Your task to perform on an android device: read, delete, or share a saved page in the chrome app Image 0: 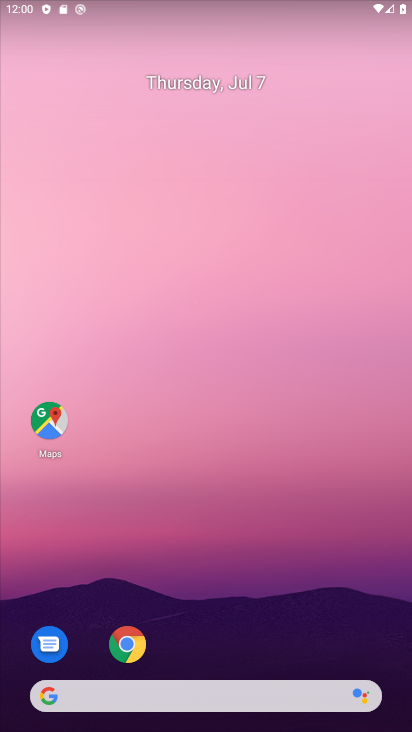
Step 0: click (144, 659)
Your task to perform on an android device: read, delete, or share a saved page in the chrome app Image 1: 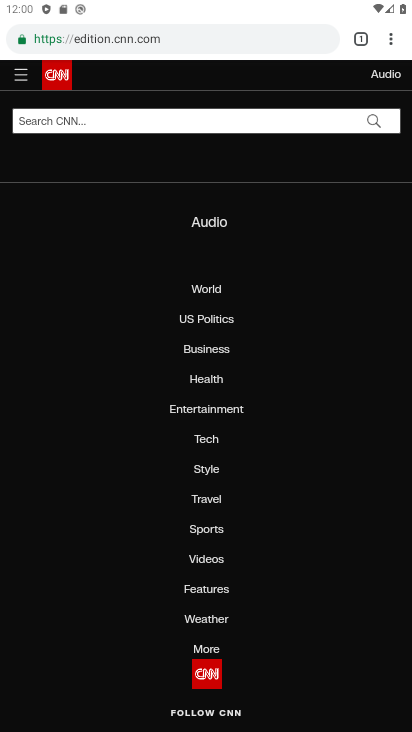
Step 1: click (388, 49)
Your task to perform on an android device: read, delete, or share a saved page in the chrome app Image 2: 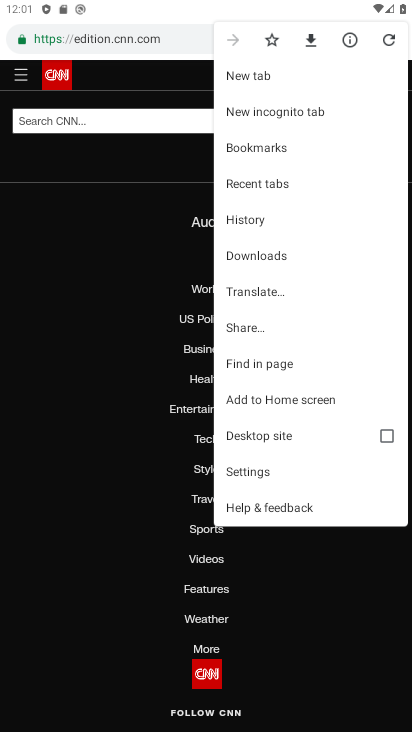
Step 2: click (264, 255)
Your task to perform on an android device: read, delete, or share a saved page in the chrome app Image 3: 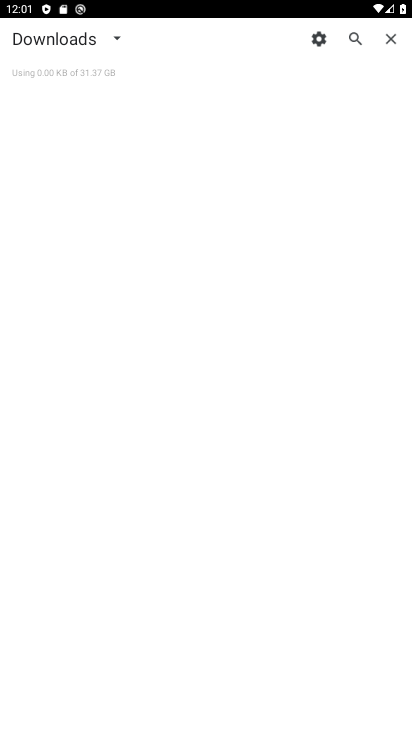
Step 3: click (118, 39)
Your task to perform on an android device: read, delete, or share a saved page in the chrome app Image 4: 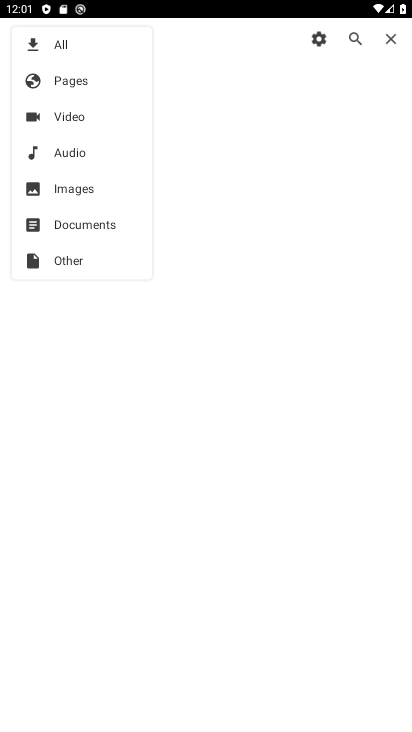
Step 4: click (64, 79)
Your task to perform on an android device: read, delete, or share a saved page in the chrome app Image 5: 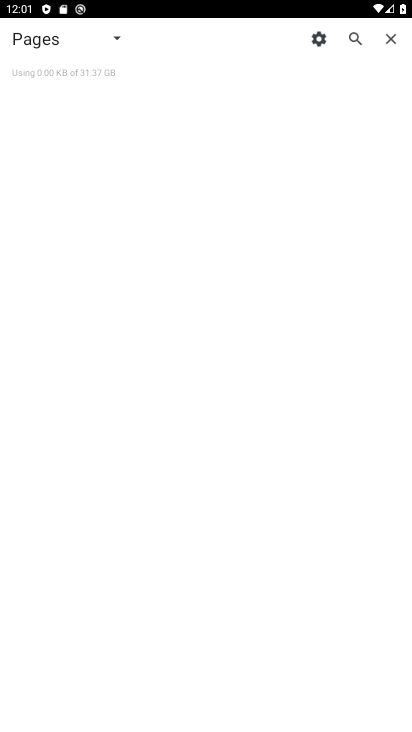
Step 5: task complete